Your task to perform on an android device: change the upload size in google photos Image 0: 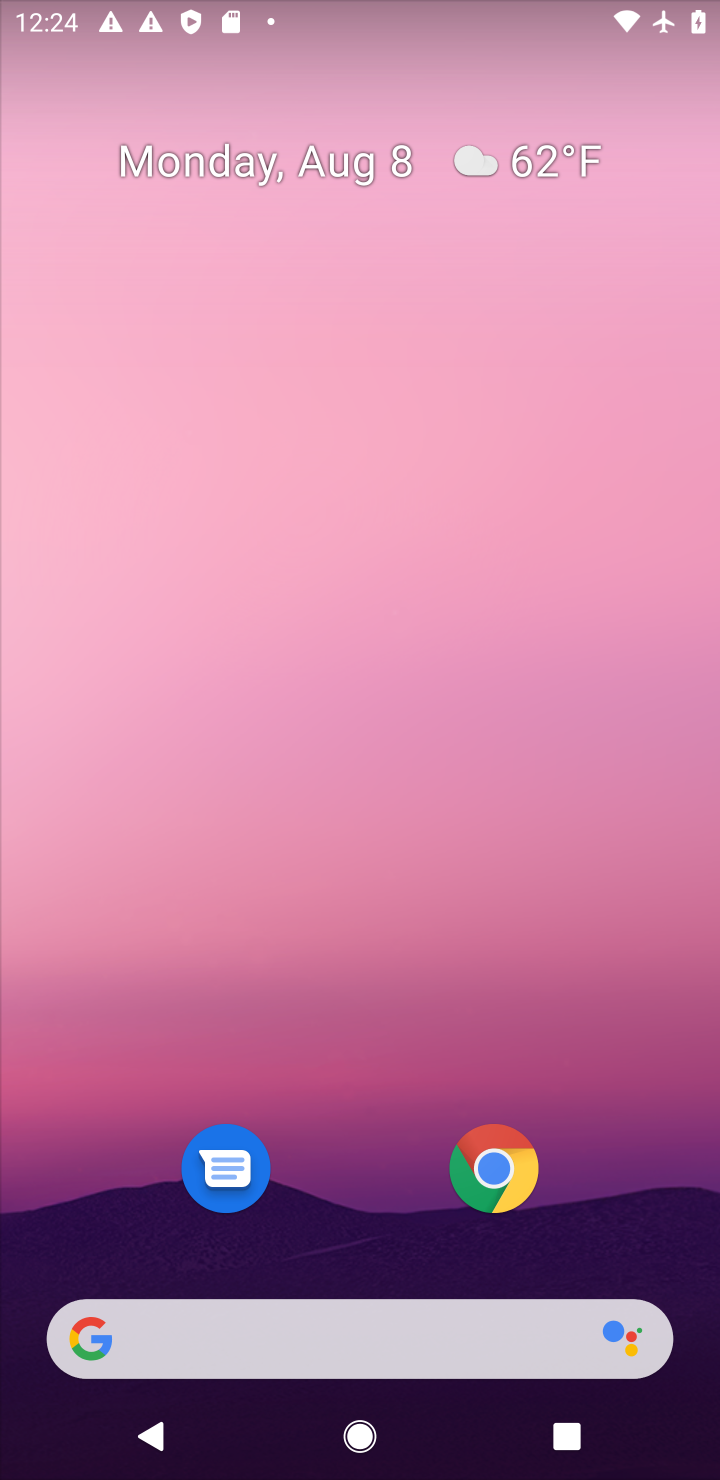
Step 0: drag from (401, 1257) to (240, 75)
Your task to perform on an android device: change the upload size in google photos Image 1: 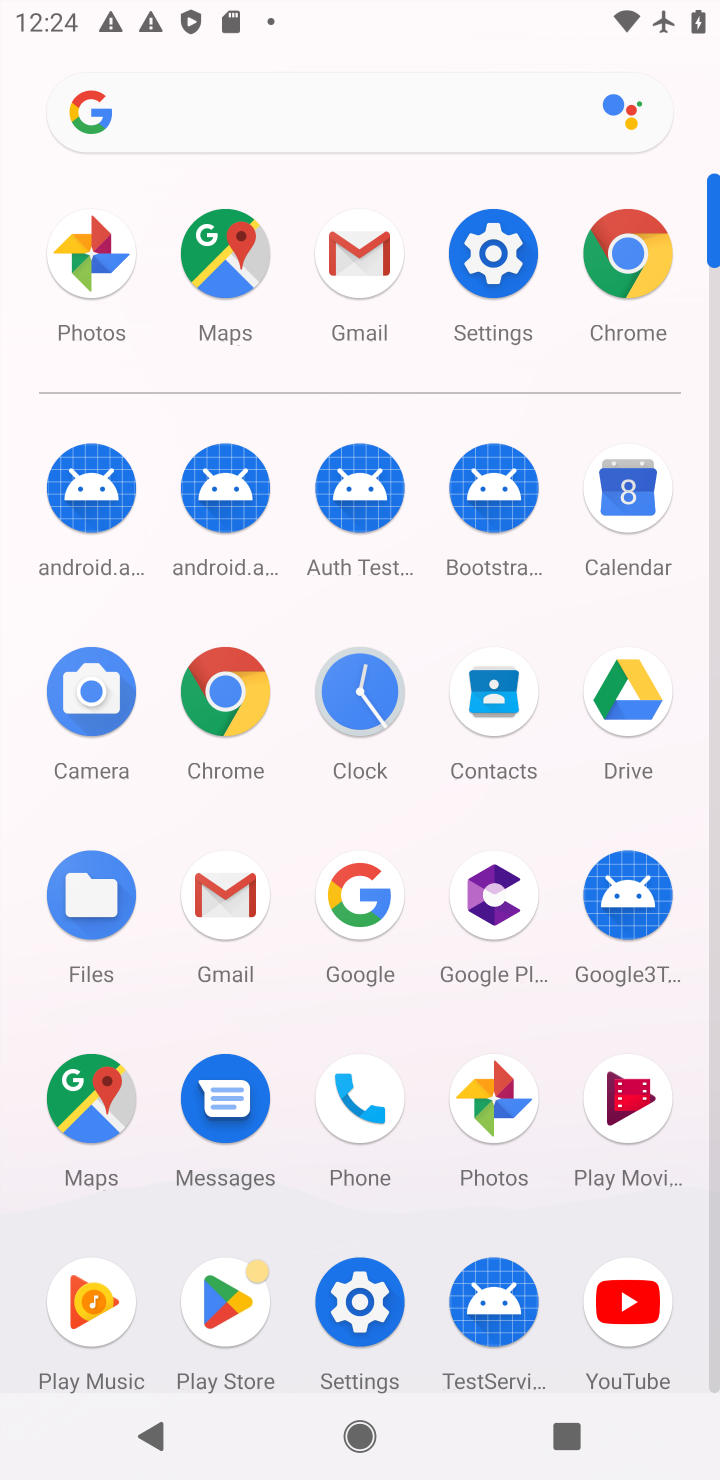
Step 1: click (512, 1119)
Your task to perform on an android device: change the upload size in google photos Image 2: 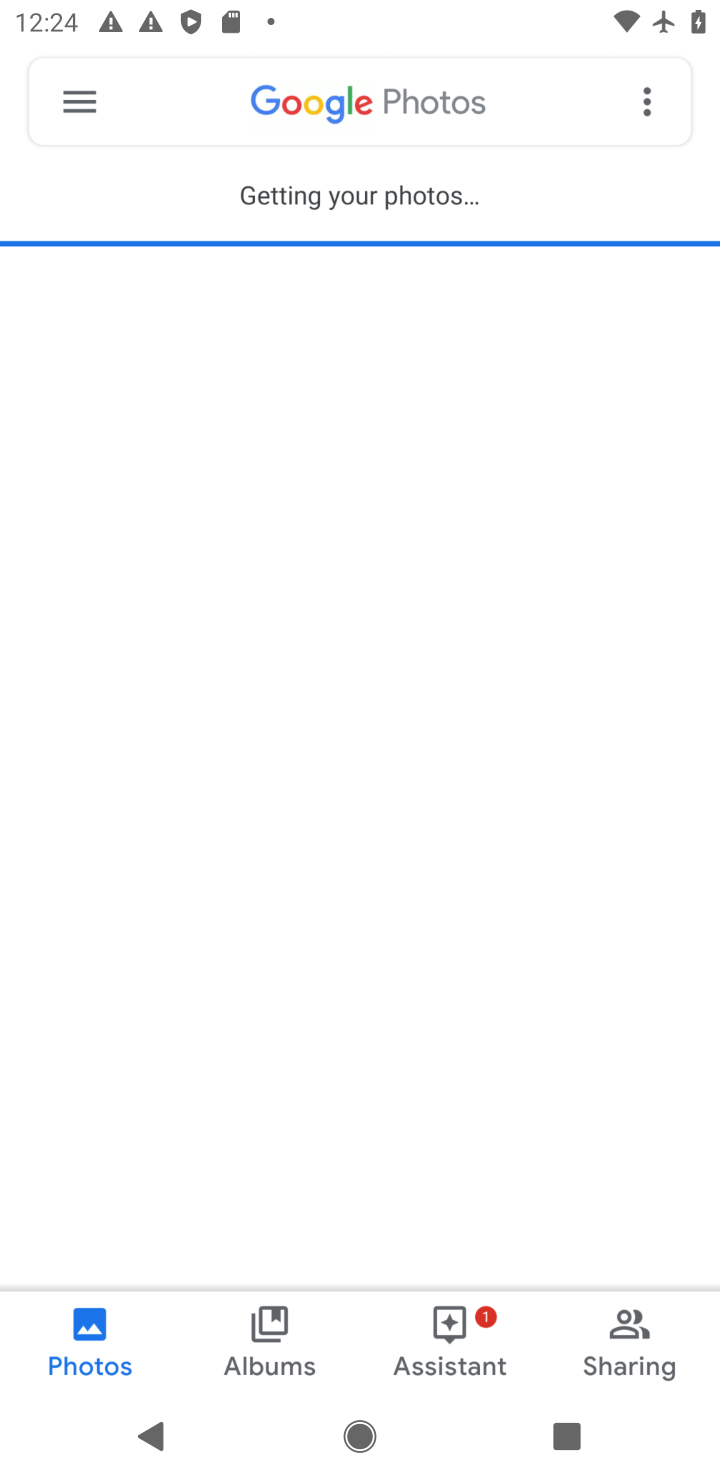
Step 2: task complete